Your task to perform on an android device: Do I have any events today? Image 0: 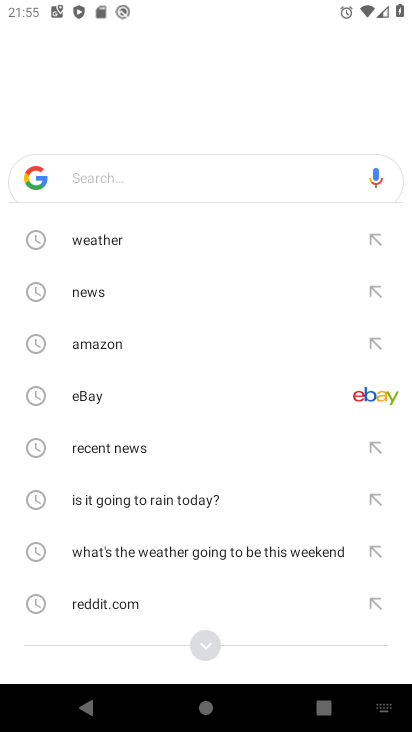
Step 0: press home button
Your task to perform on an android device: Do I have any events today? Image 1: 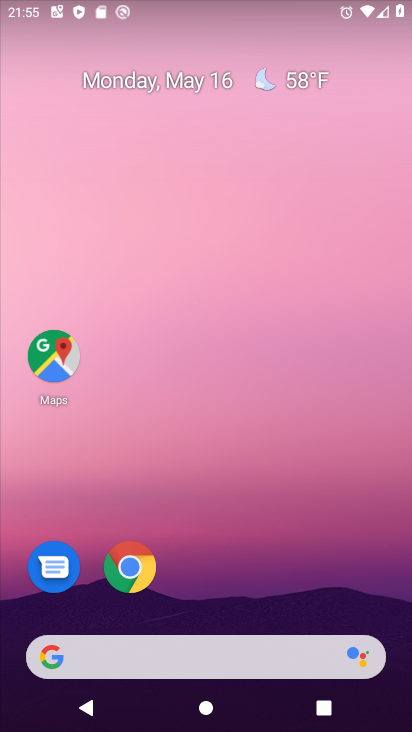
Step 1: drag from (259, 587) to (232, 151)
Your task to perform on an android device: Do I have any events today? Image 2: 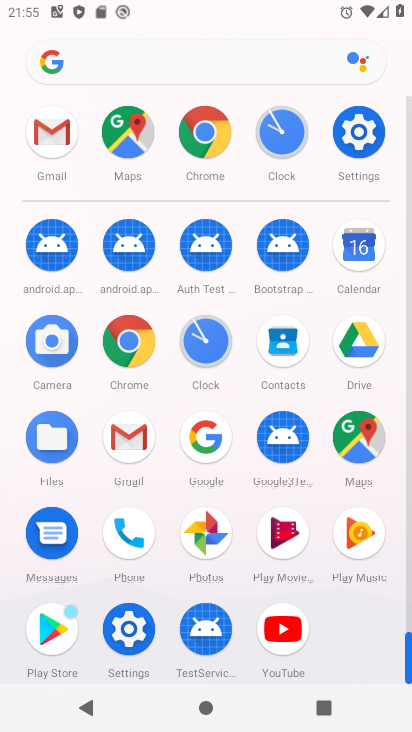
Step 2: click (368, 240)
Your task to perform on an android device: Do I have any events today? Image 3: 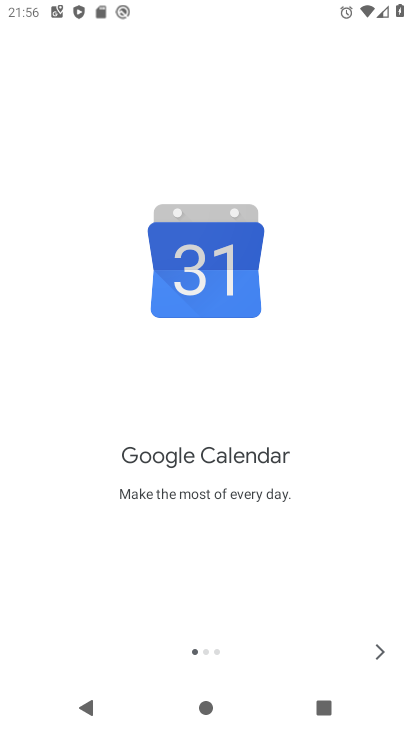
Step 3: click (373, 644)
Your task to perform on an android device: Do I have any events today? Image 4: 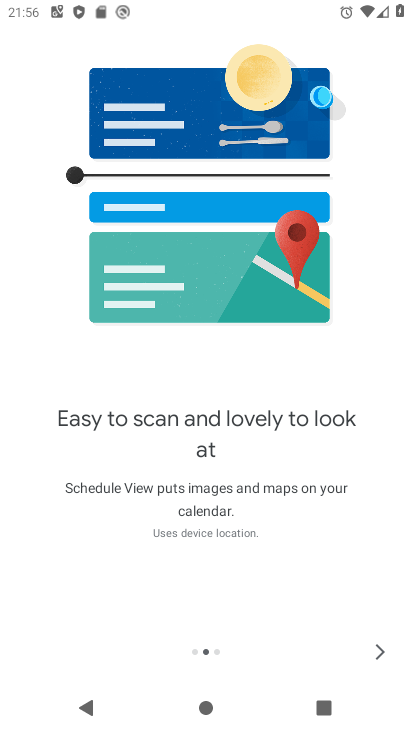
Step 4: click (379, 656)
Your task to perform on an android device: Do I have any events today? Image 5: 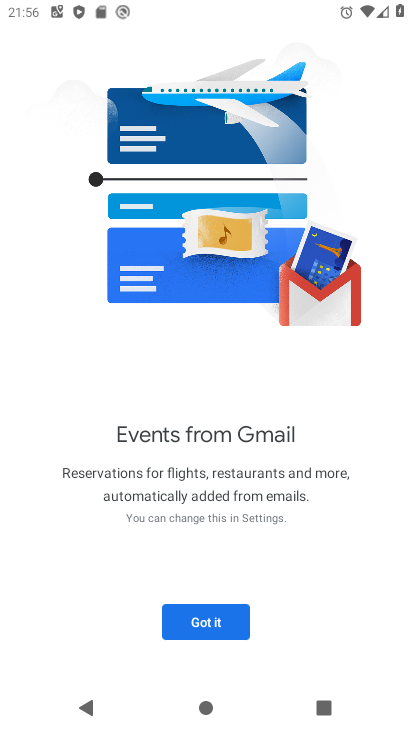
Step 5: click (228, 621)
Your task to perform on an android device: Do I have any events today? Image 6: 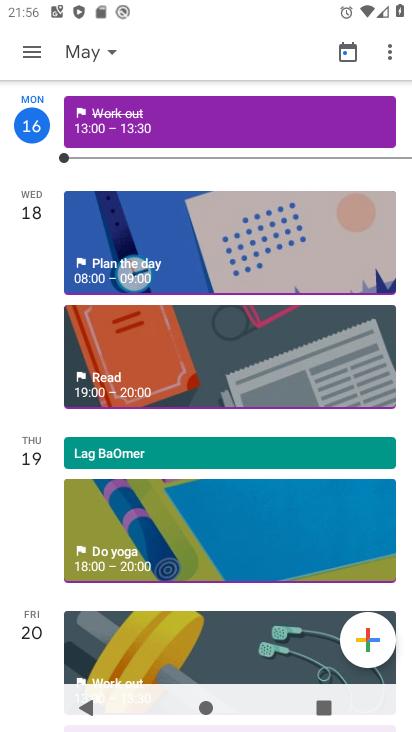
Step 6: drag from (155, 224) to (147, 476)
Your task to perform on an android device: Do I have any events today? Image 7: 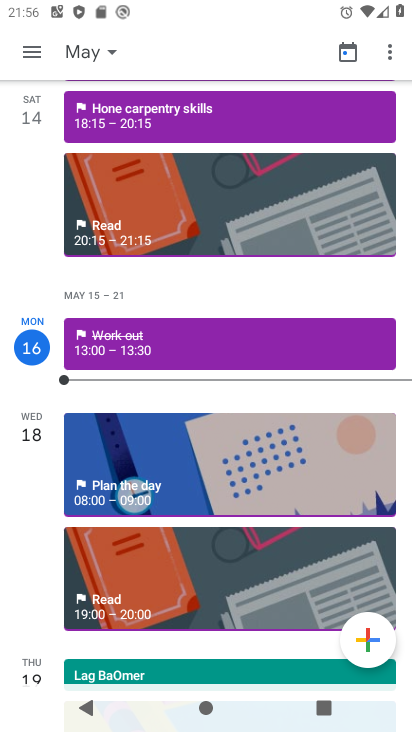
Step 7: click (28, 47)
Your task to perform on an android device: Do I have any events today? Image 8: 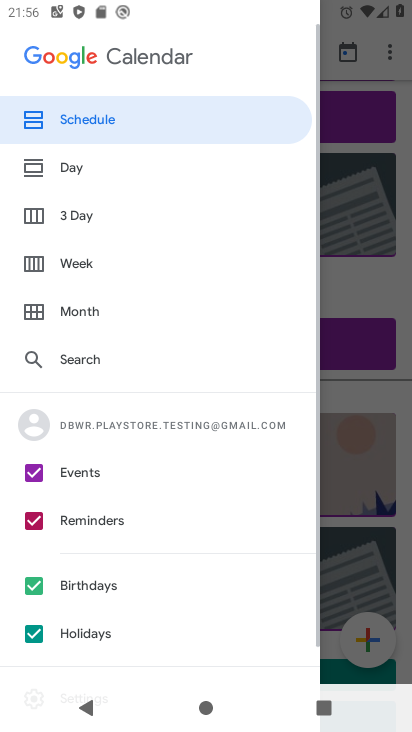
Step 8: click (81, 299)
Your task to perform on an android device: Do I have any events today? Image 9: 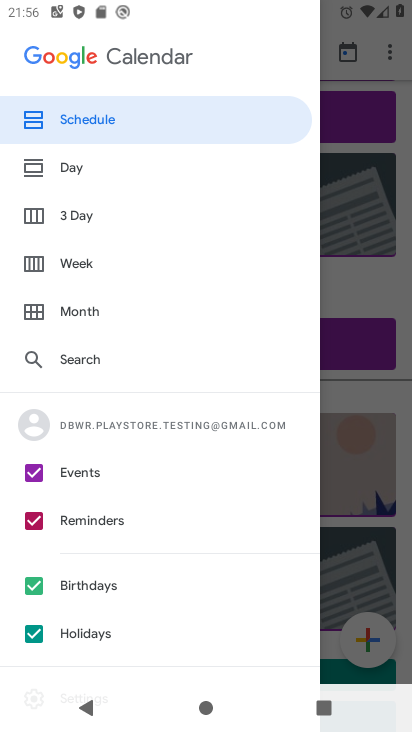
Step 9: click (76, 314)
Your task to perform on an android device: Do I have any events today? Image 10: 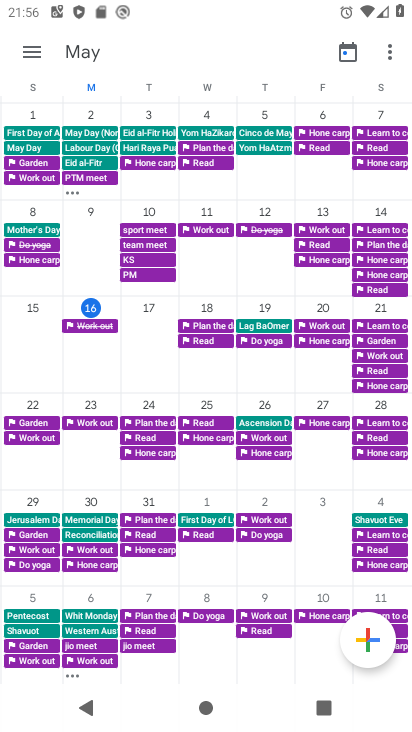
Step 10: click (141, 323)
Your task to perform on an android device: Do I have any events today? Image 11: 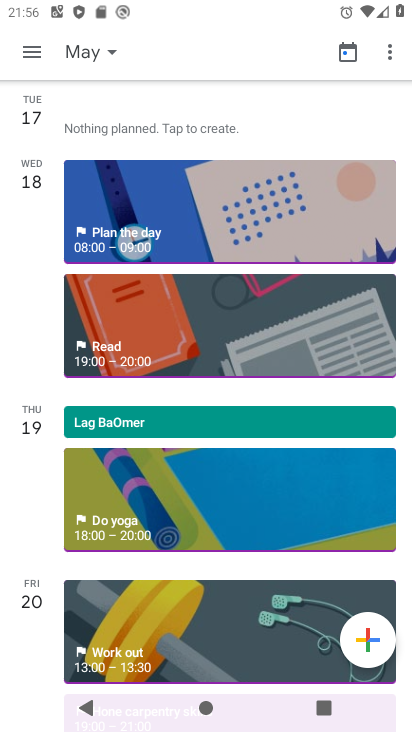
Step 11: task complete